Your task to perform on an android device: install app "TextNow: Call + Text Unlimited" Image 0: 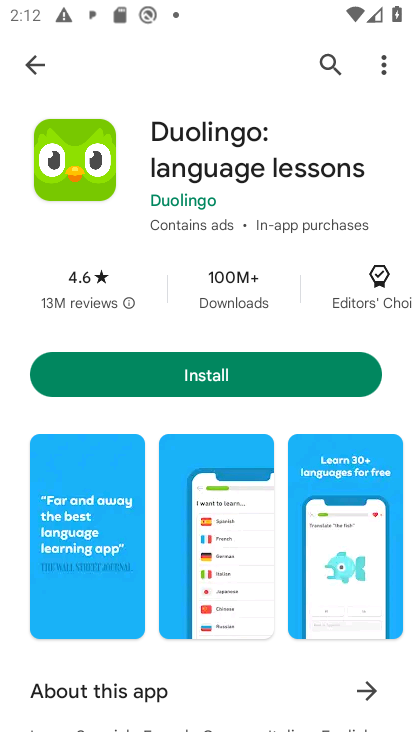
Step 0: click (328, 63)
Your task to perform on an android device: install app "TextNow: Call + Text Unlimited" Image 1: 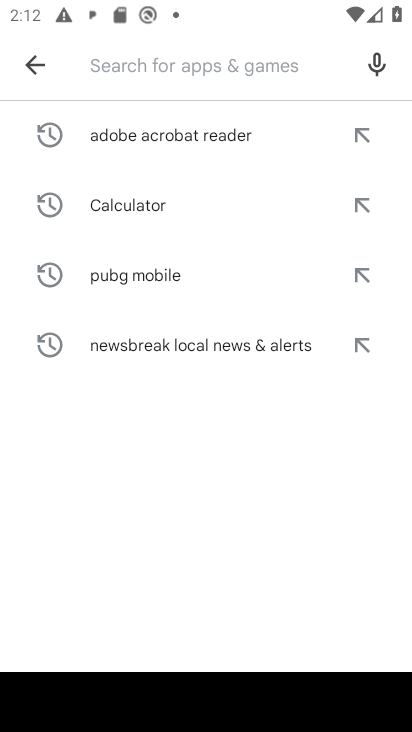
Step 1: type "textNow: Call + Text Unlimited"
Your task to perform on an android device: install app "TextNow: Call + Text Unlimited" Image 2: 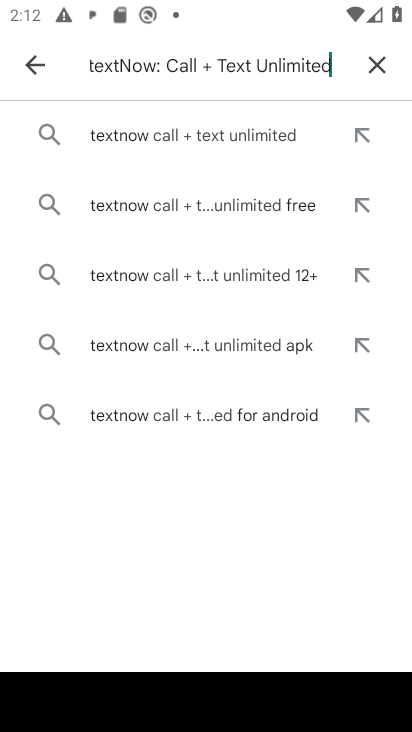
Step 2: click (298, 140)
Your task to perform on an android device: install app "TextNow: Call + Text Unlimited" Image 3: 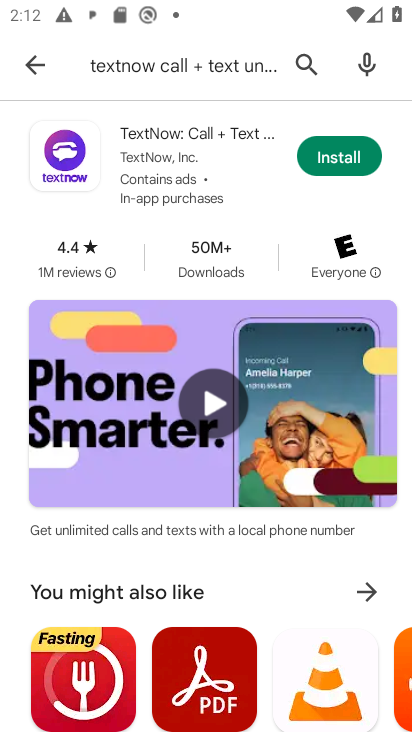
Step 3: click (331, 172)
Your task to perform on an android device: install app "TextNow: Call + Text Unlimited" Image 4: 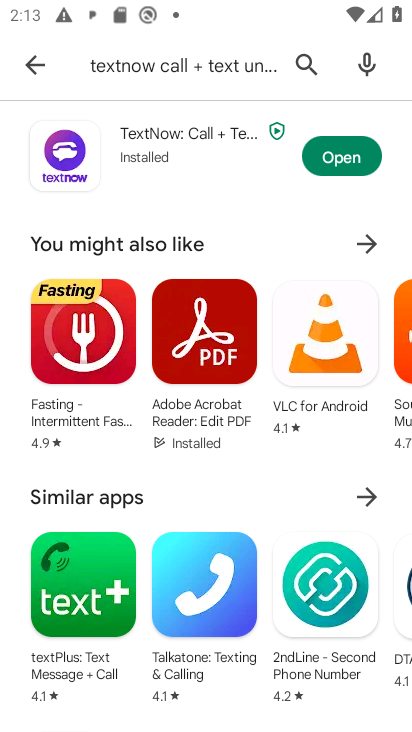
Step 4: task complete